Your task to perform on an android device: open app "Firefox Browser" (install if not already installed) Image 0: 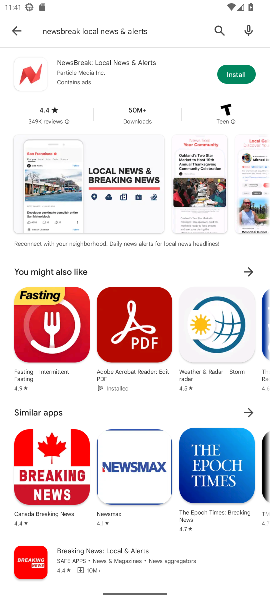
Step 0: press home button
Your task to perform on an android device: open app "Firefox Browser" (install if not already installed) Image 1: 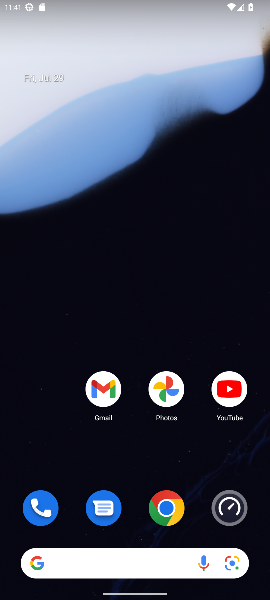
Step 1: drag from (185, 556) to (212, 124)
Your task to perform on an android device: open app "Firefox Browser" (install if not already installed) Image 2: 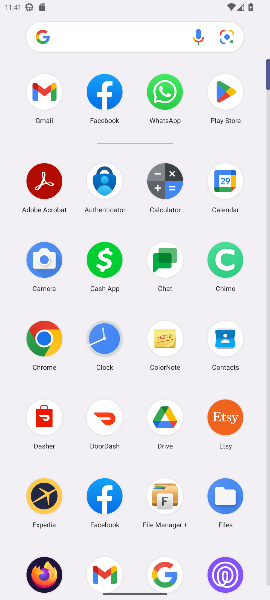
Step 2: click (223, 99)
Your task to perform on an android device: open app "Firefox Browser" (install if not already installed) Image 3: 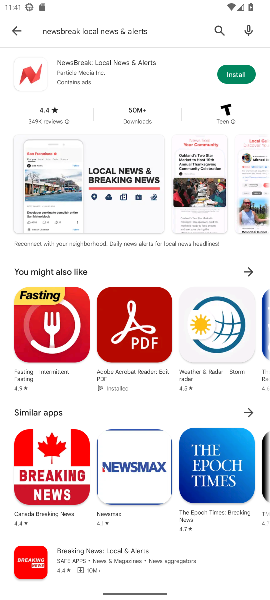
Step 3: click (212, 28)
Your task to perform on an android device: open app "Firefox Browser" (install if not already installed) Image 4: 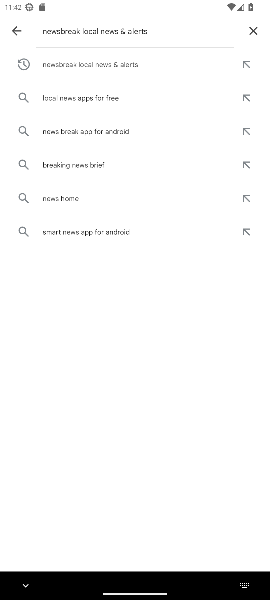
Step 4: click (257, 31)
Your task to perform on an android device: open app "Firefox Browser" (install if not already installed) Image 5: 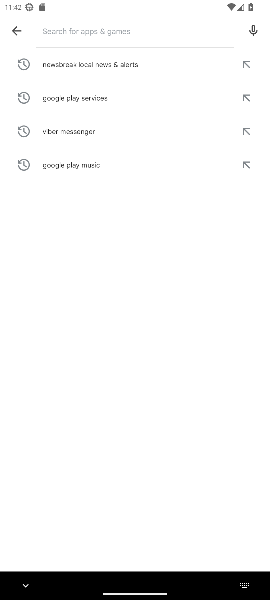
Step 5: click (204, 32)
Your task to perform on an android device: open app "Firefox Browser" (install if not already installed) Image 6: 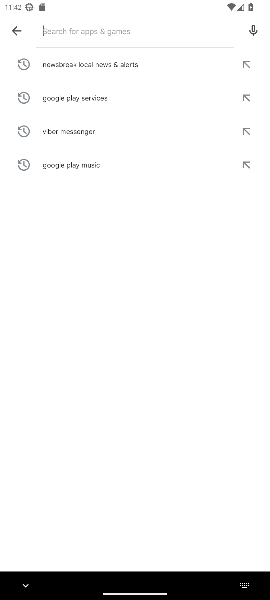
Step 6: type "firefox browser"
Your task to perform on an android device: open app "Firefox Browser" (install if not already installed) Image 7: 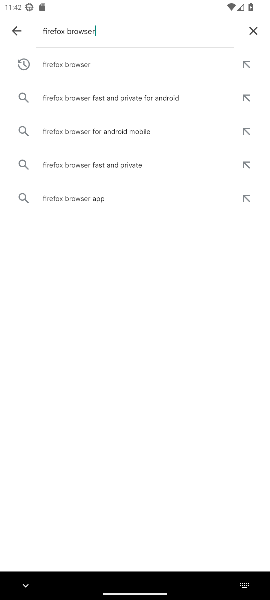
Step 7: click (71, 60)
Your task to perform on an android device: open app "Firefox Browser" (install if not already installed) Image 8: 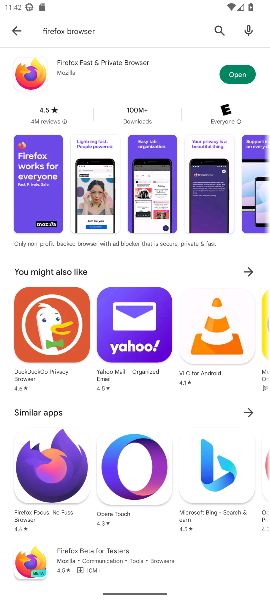
Step 8: click (243, 75)
Your task to perform on an android device: open app "Firefox Browser" (install if not already installed) Image 9: 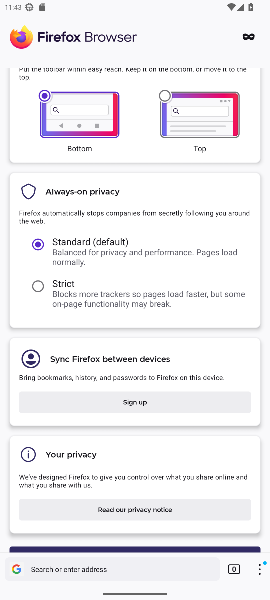
Step 9: task complete